Your task to perform on an android device: Go to calendar. Show me events next week Image 0: 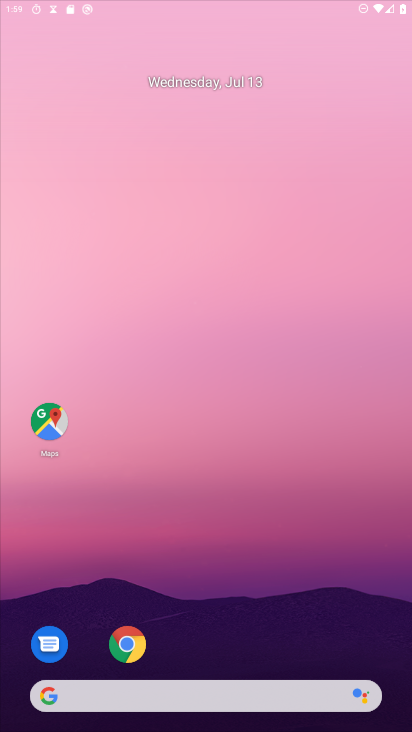
Step 0: press home button
Your task to perform on an android device: Go to calendar. Show me events next week Image 1: 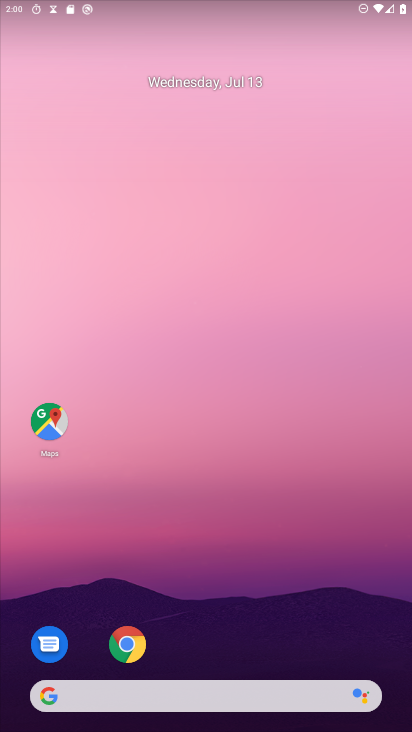
Step 1: press home button
Your task to perform on an android device: Go to calendar. Show me events next week Image 2: 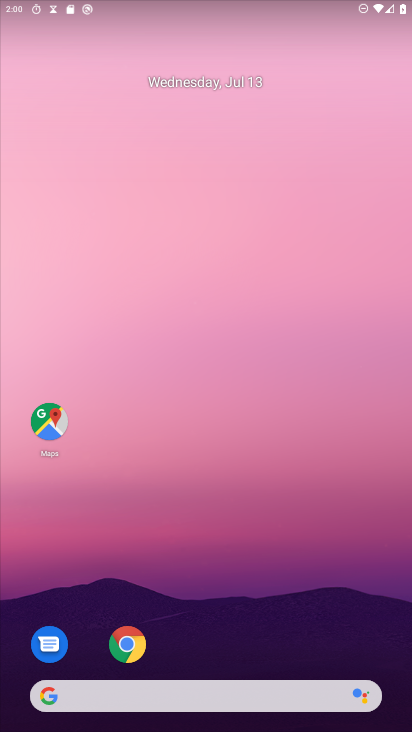
Step 2: drag from (229, 623) to (243, 165)
Your task to perform on an android device: Go to calendar. Show me events next week Image 3: 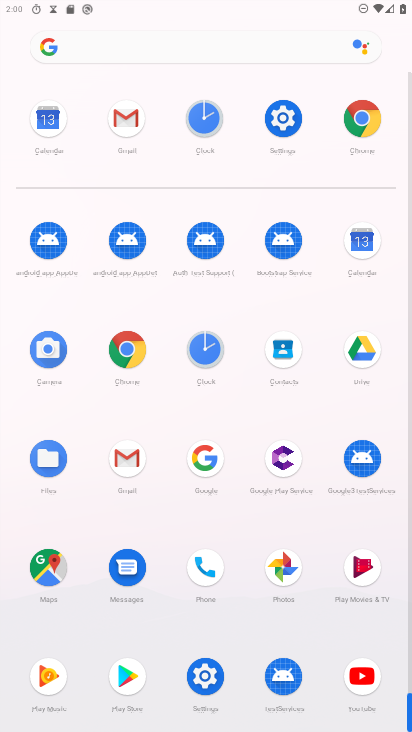
Step 3: click (369, 246)
Your task to perform on an android device: Go to calendar. Show me events next week Image 4: 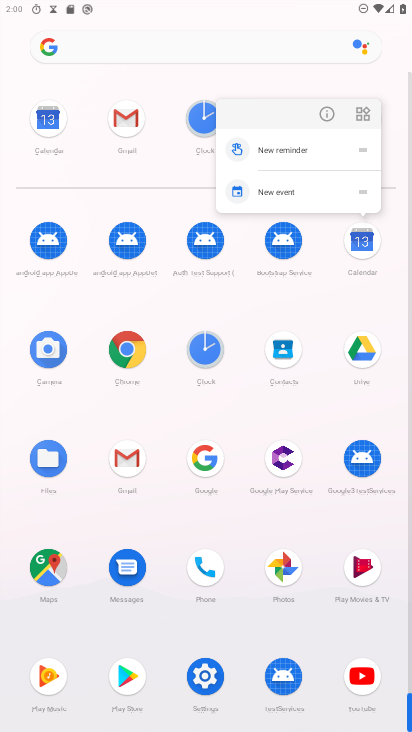
Step 4: click (370, 250)
Your task to perform on an android device: Go to calendar. Show me events next week Image 5: 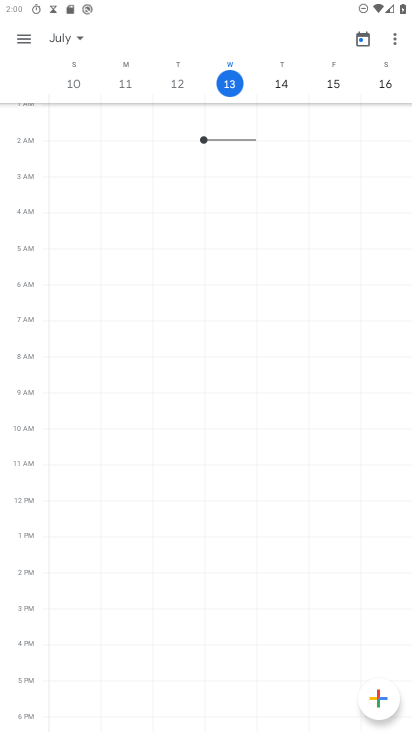
Step 5: task complete